Your task to perform on an android device: Open network settings Image 0: 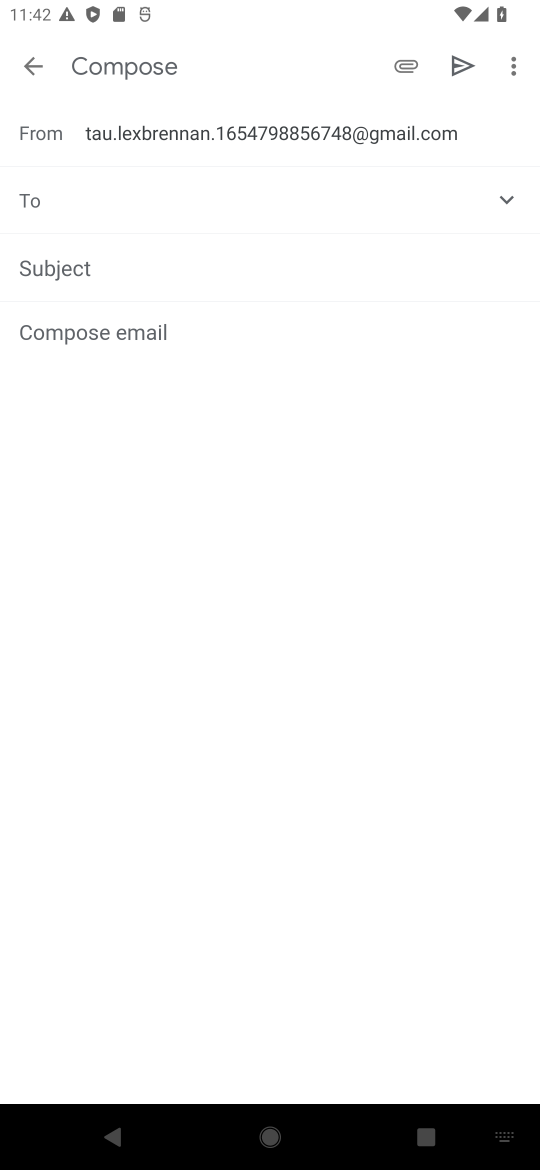
Step 0: press home button
Your task to perform on an android device: Open network settings Image 1: 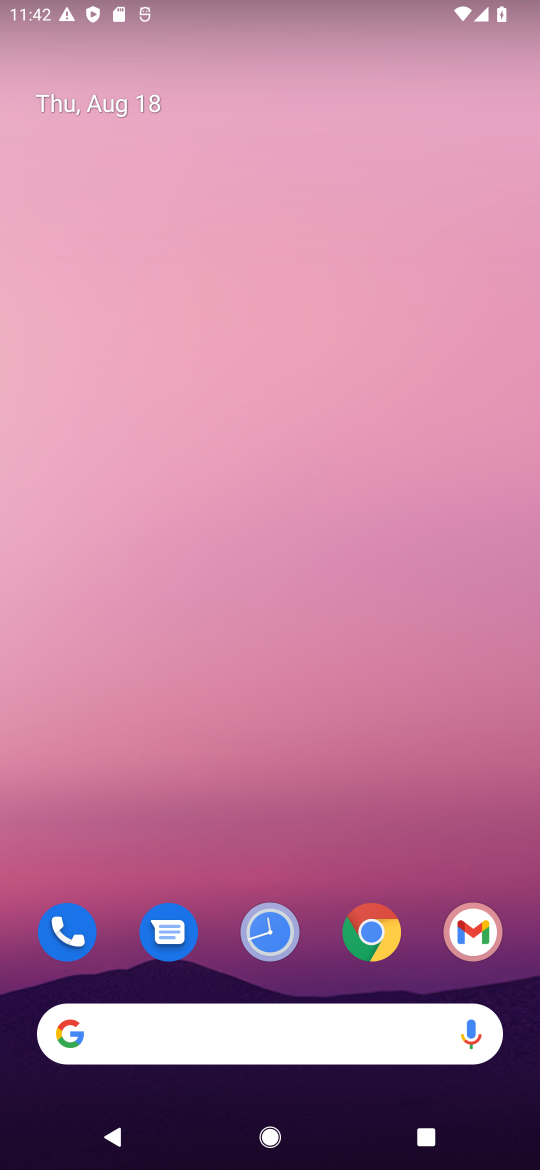
Step 1: drag from (209, 879) to (196, 485)
Your task to perform on an android device: Open network settings Image 2: 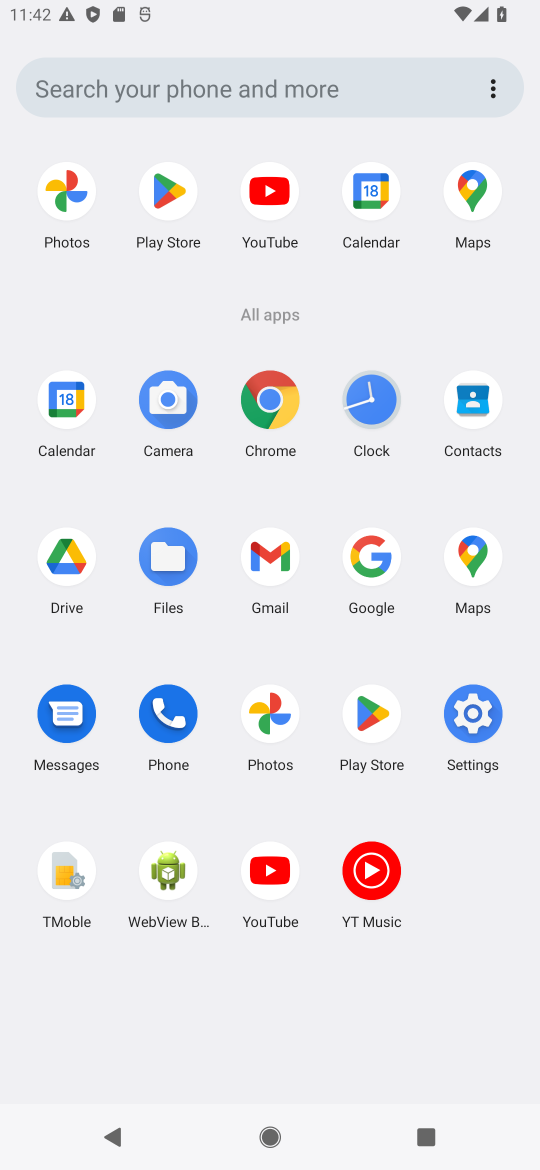
Step 2: click (461, 704)
Your task to perform on an android device: Open network settings Image 3: 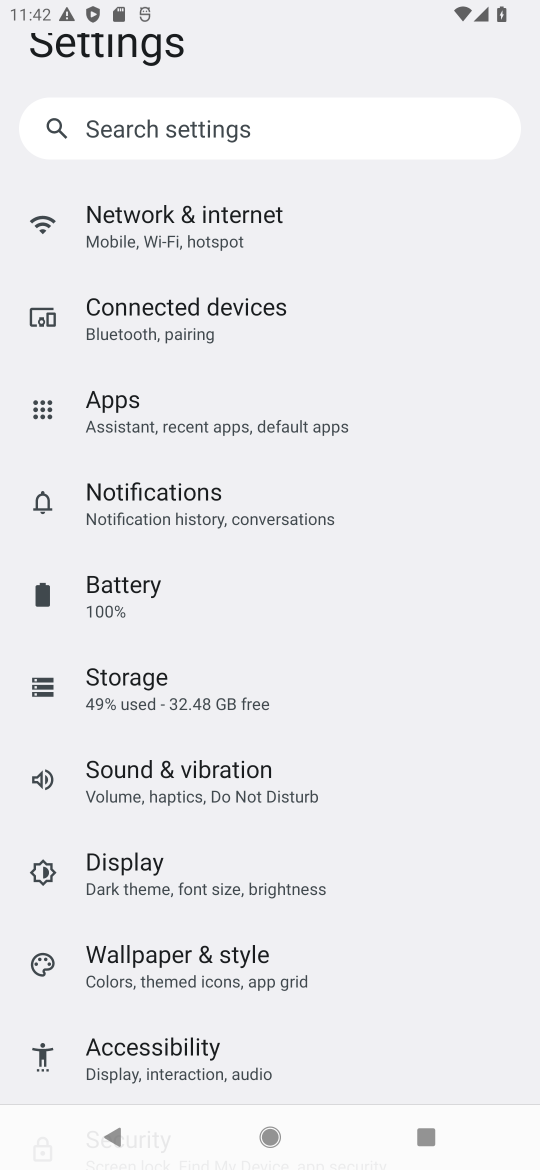
Step 3: click (213, 205)
Your task to perform on an android device: Open network settings Image 4: 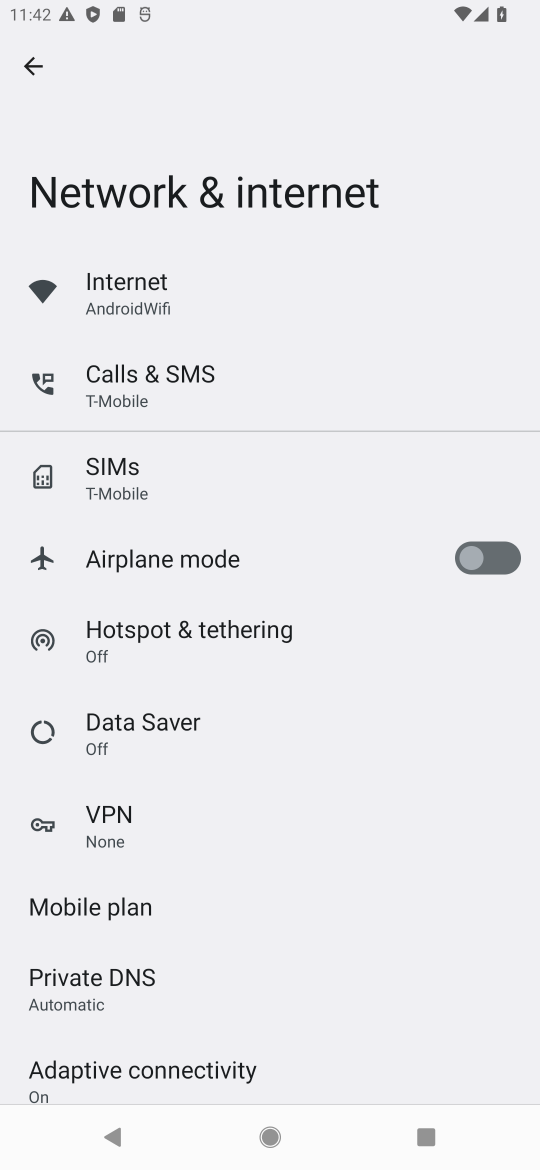
Step 4: task complete